Your task to perform on an android device: What is the recent news? Image 0: 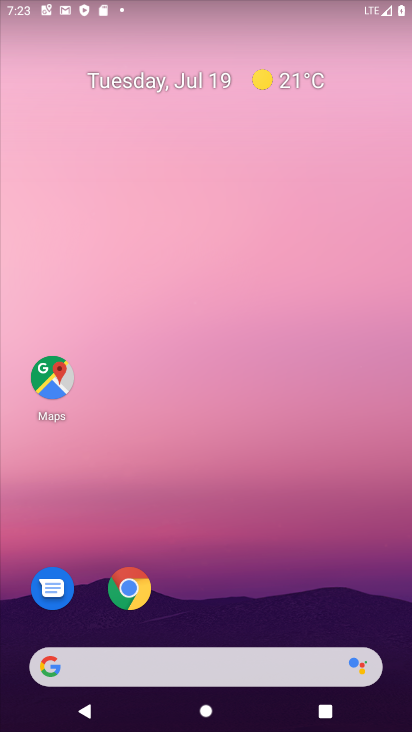
Step 0: drag from (235, 570) to (263, 124)
Your task to perform on an android device: What is the recent news? Image 1: 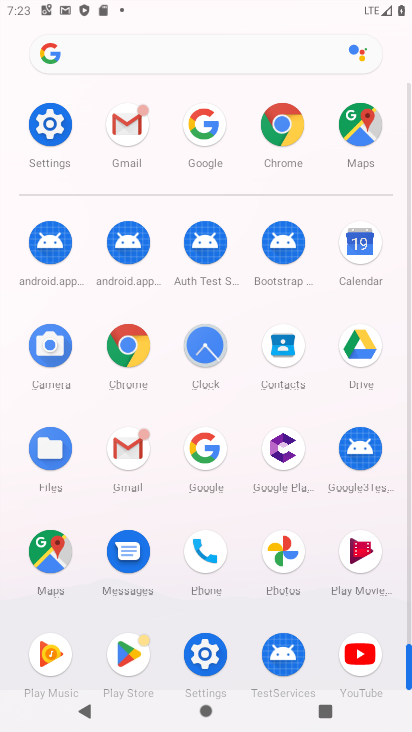
Step 1: click (205, 470)
Your task to perform on an android device: What is the recent news? Image 2: 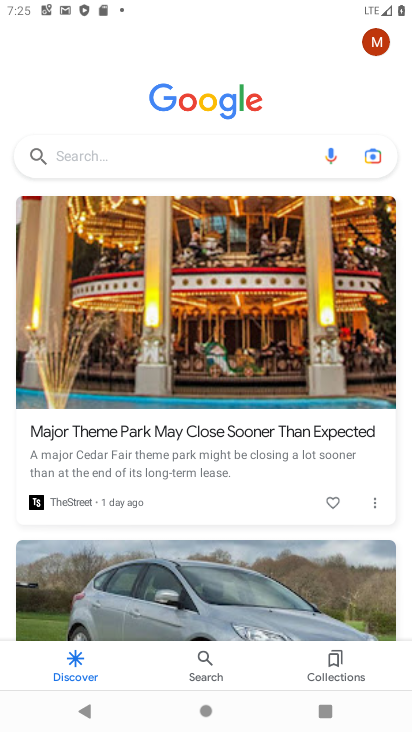
Step 2: task complete